Your task to perform on an android device: Open settings on Google Maps Image 0: 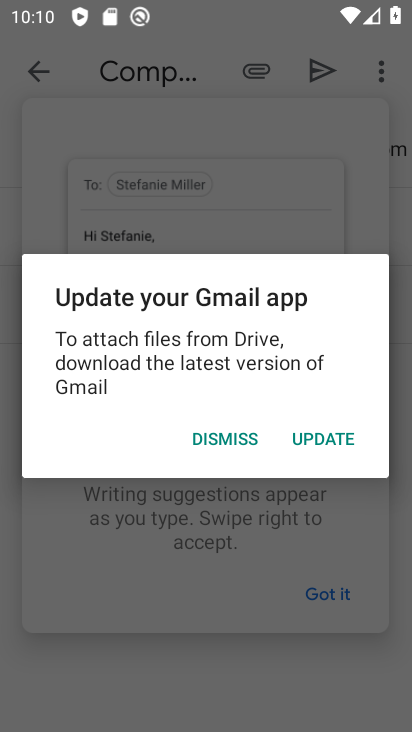
Step 0: press home button
Your task to perform on an android device: Open settings on Google Maps Image 1: 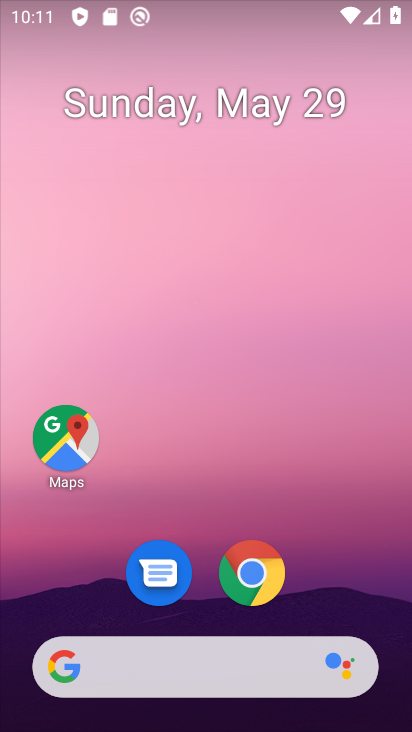
Step 1: click (68, 454)
Your task to perform on an android device: Open settings on Google Maps Image 2: 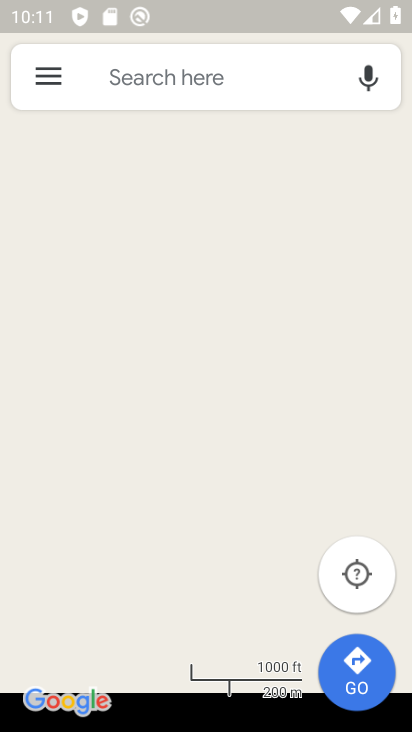
Step 2: click (53, 74)
Your task to perform on an android device: Open settings on Google Maps Image 3: 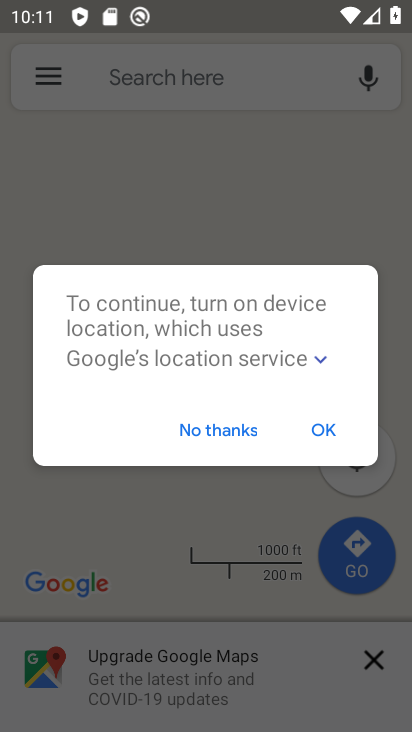
Step 3: click (328, 439)
Your task to perform on an android device: Open settings on Google Maps Image 4: 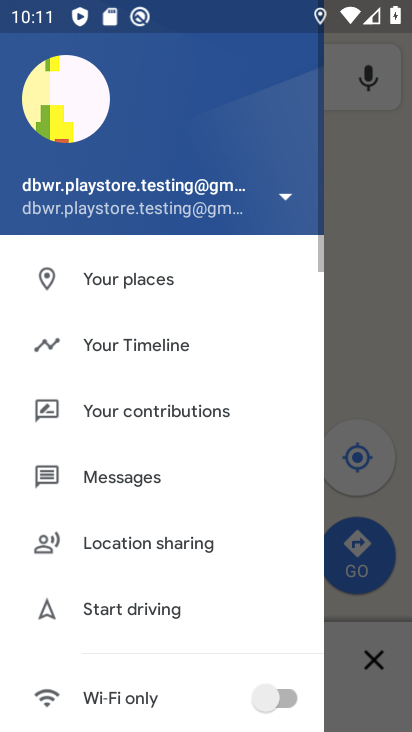
Step 4: drag from (99, 642) to (240, 163)
Your task to perform on an android device: Open settings on Google Maps Image 5: 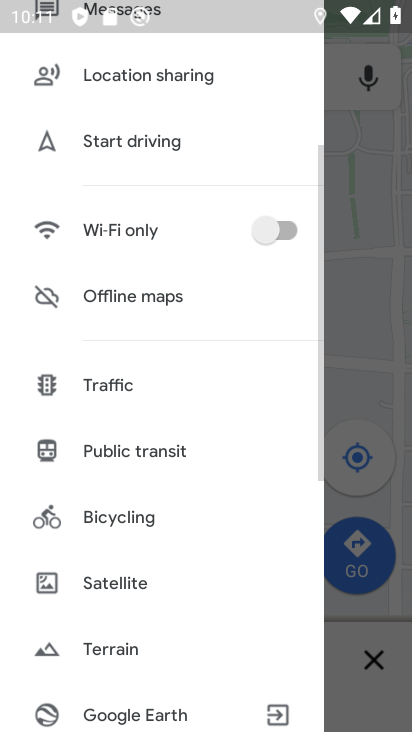
Step 5: drag from (118, 608) to (230, 204)
Your task to perform on an android device: Open settings on Google Maps Image 6: 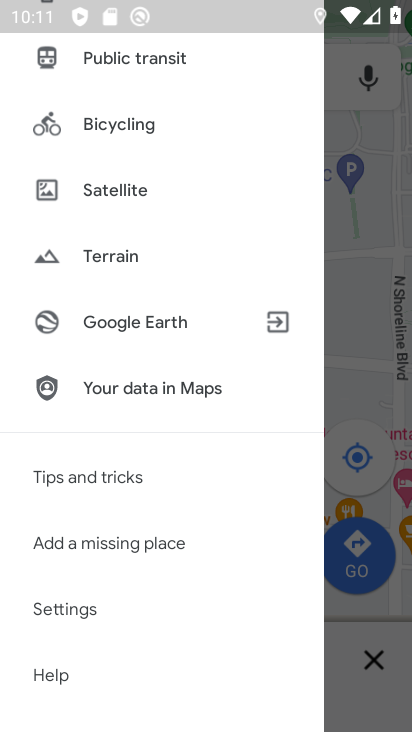
Step 6: click (105, 616)
Your task to perform on an android device: Open settings on Google Maps Image 7: 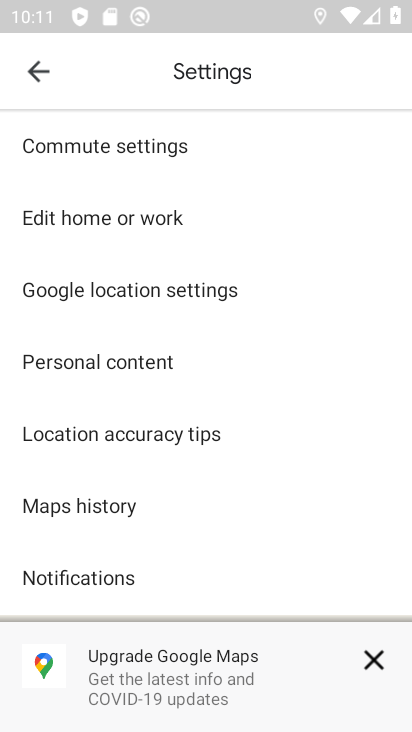
Step 7: task complete